Your task to perform on an android device: delete browsing data in the chrome app Image 0: 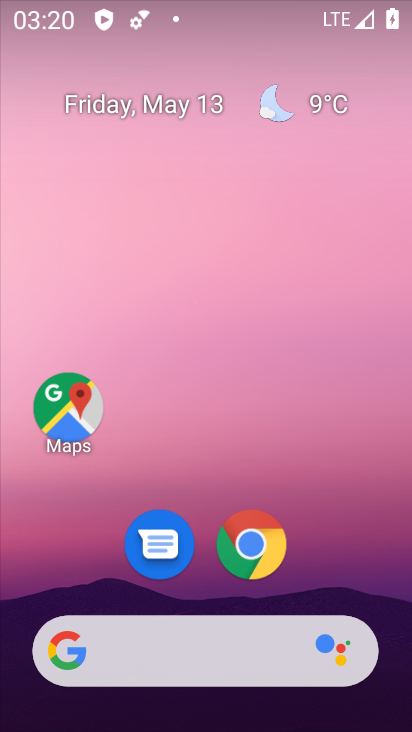
Step 0: drag from (355, 523) to (281, 3)
Your task to perform on an android device: delete browsing data in the chrome app Image 1: 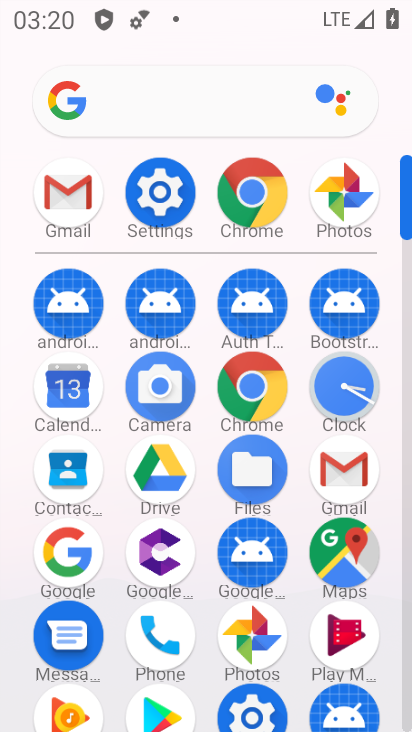
Step 1: drag from (6, 526) to (0, 215)
Your task to perform on an android device: delete browsing data in the chrome app Image 2: 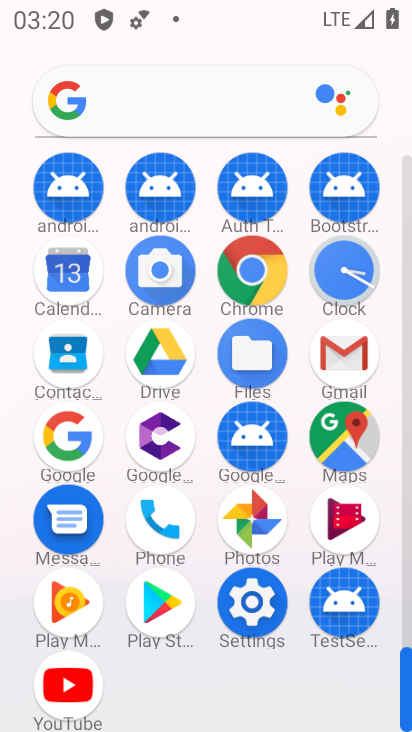
Step 2: click (253, 266)
Your task to perform on an android device: delete browsing data in the chrome app Image 3: 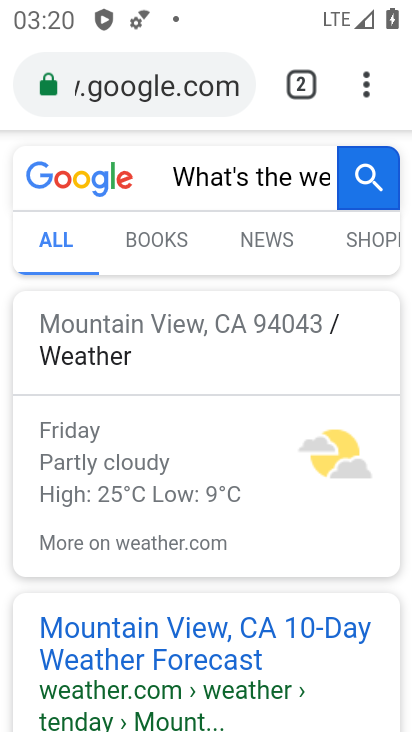
Step 3: drag from (362, 81) to (192, 142)
Your task to perform on an android device: delete browsing data in the chrome app Image 4: 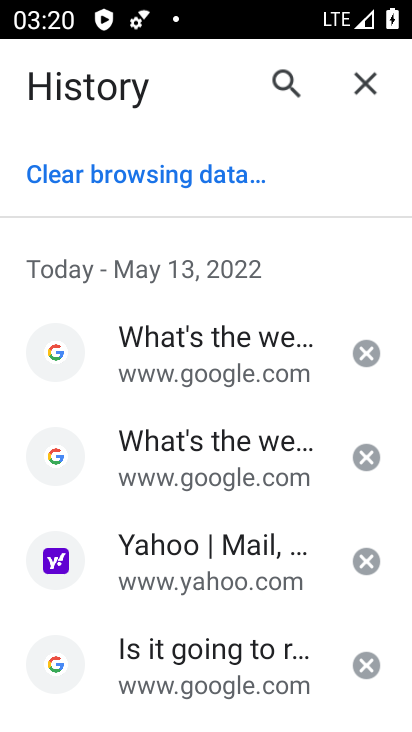
Step 4: click (164, 172)
Your task to perform on an android device: delete browsing data in the chrome app Image 5: 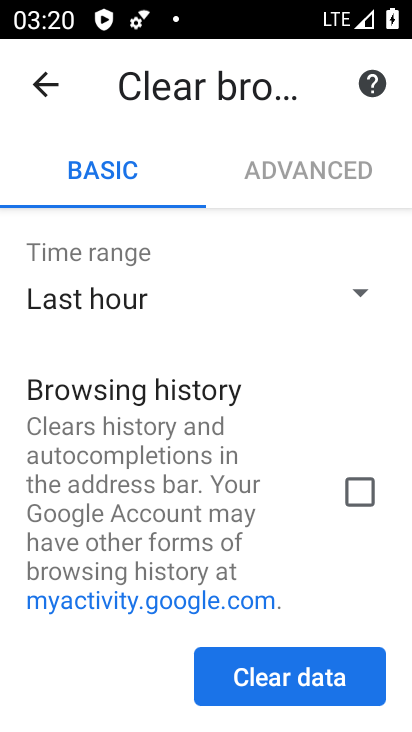
Step 5: click (264, 674)
Your task to perform on an android device: delete browsing data in the chrome app Image 6: 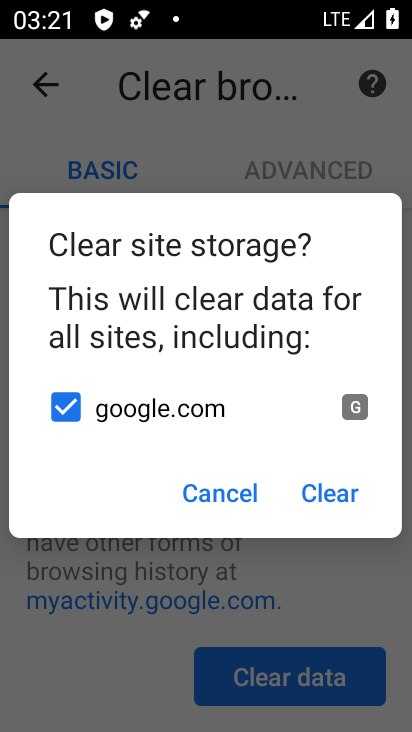
Step 6: click (327, 486)
Your task to perform on an android device: delete browsing data in the chrome app Image 7: 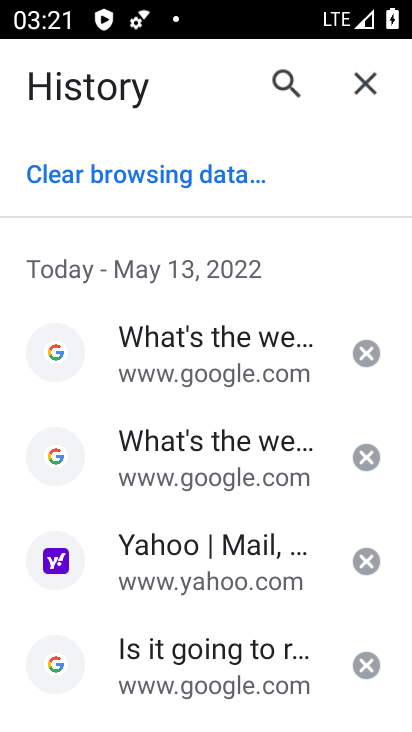
Step 7: click (148, 170)
Your task to perform on an android device: delete browsing data in the chrome app Image 8: 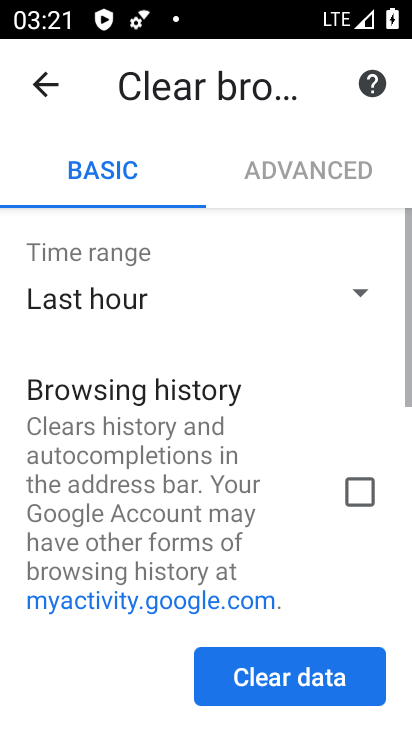
Step 8: click (283, 685)
Your task to perform on an android device: delete browsing data in the chrome app Image 9: 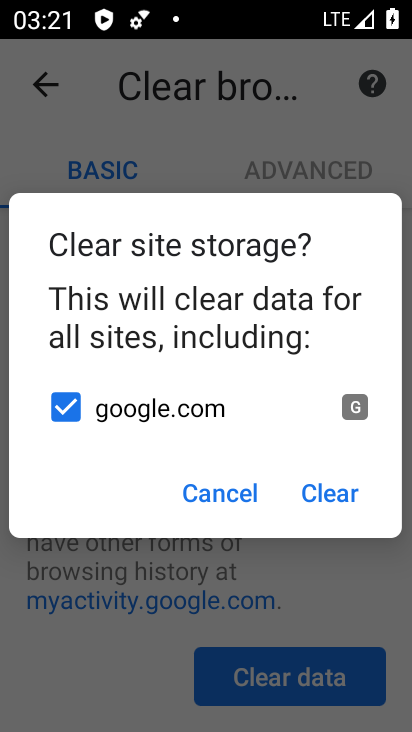
Step 9: click (204, 494)
Your task to perform on an android device: delete browsing data in the chrome app Image 10: 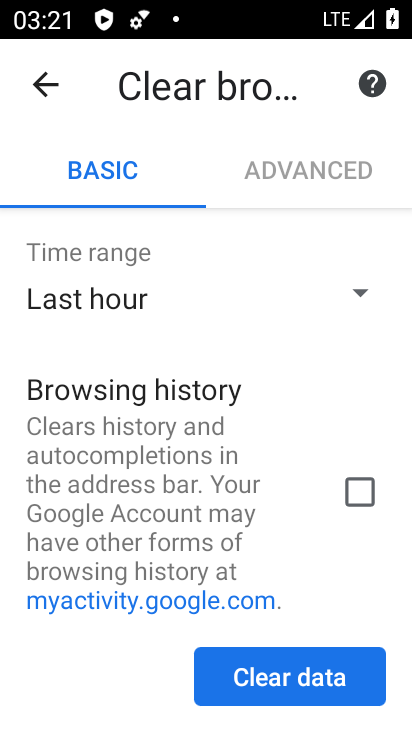
Step 10: click (363, 491)
Your task to perform on an android device: delete browsing data in the chrome app Image 11: 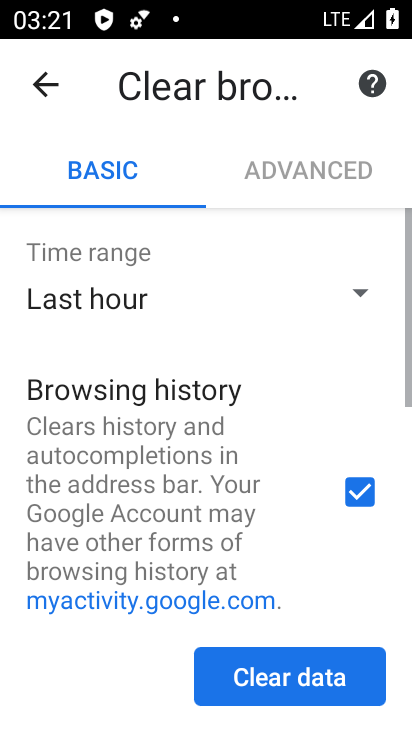
Step 11: click (290, 669)
Your task to perform on an android device: delete browsing data in the chrome app Image 12: 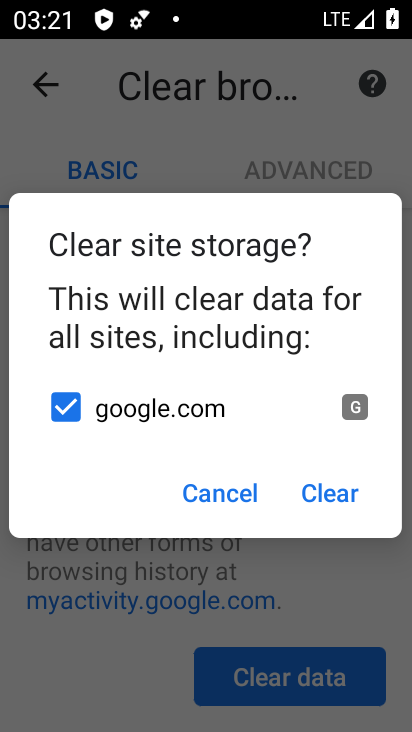
Step 12: click (344, 482)
Your task to perform on an android device: delete browsing data in the chrome app Image 13: 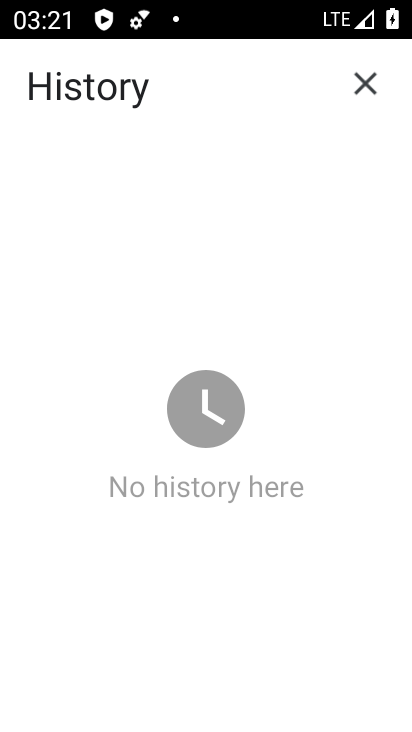
Step 13: task complete